Your task to perform on an android device: install app "Skype" Image 0: 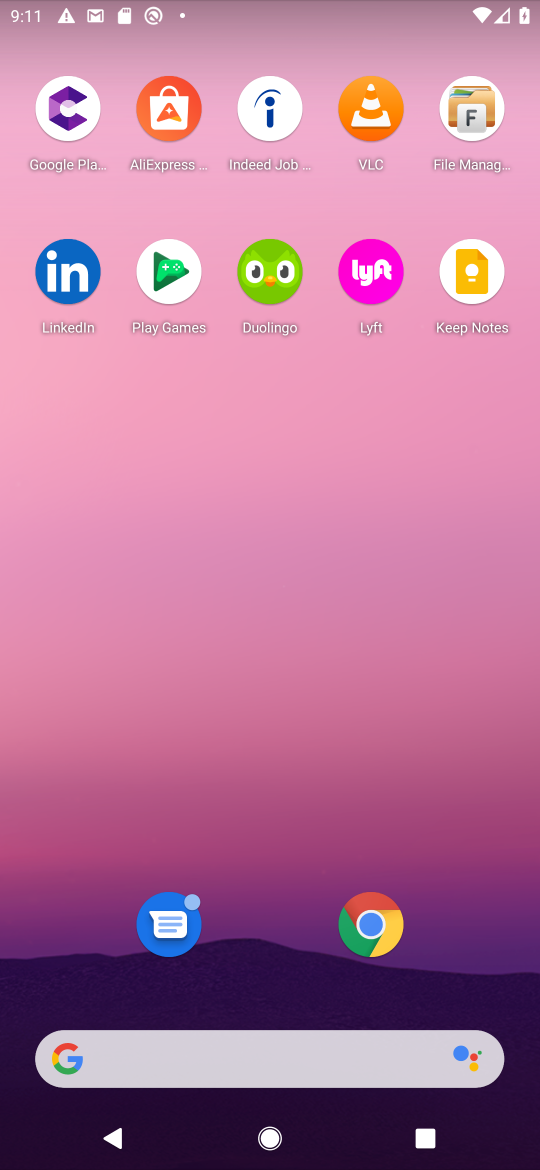
Step 0: press home button
Your task to perform on an android device: install app "Skype" Image 1: 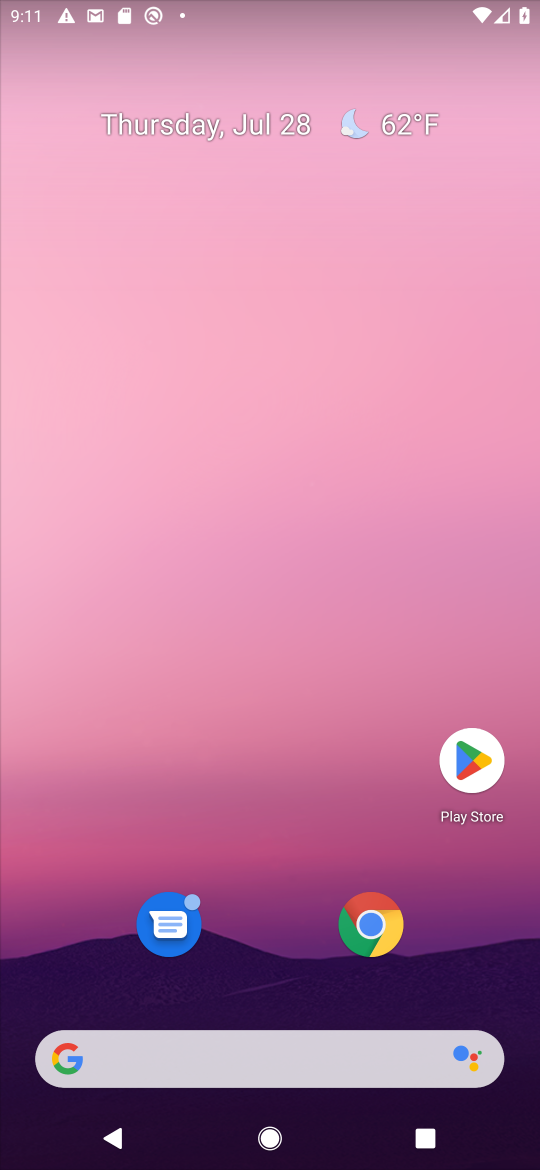
Step 1: click (471, 749)
Your task to perform on an android device: install app "Skype" Image 2: 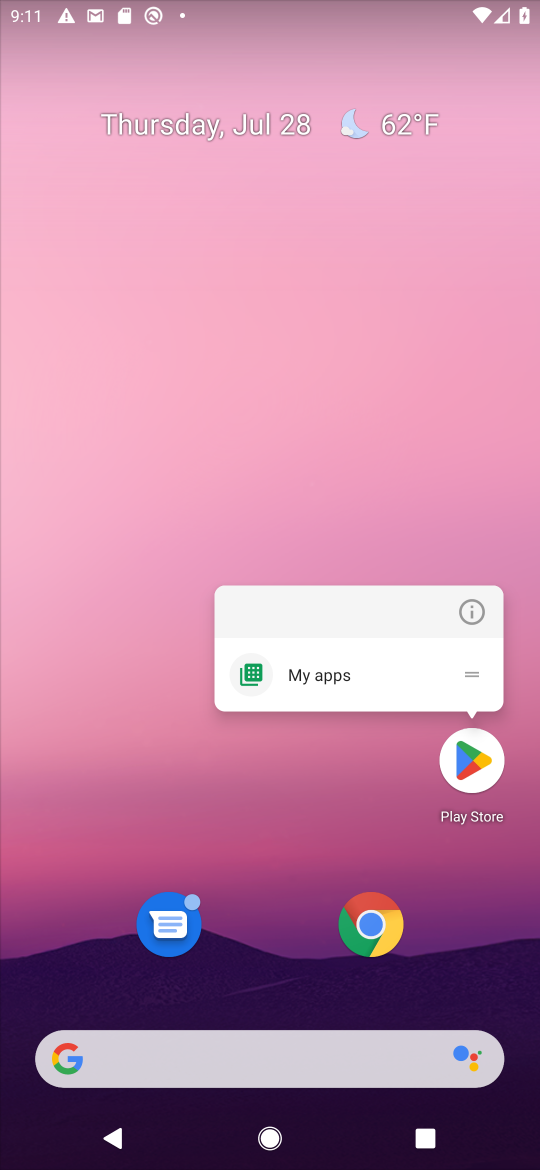
Step 2: click (471, 755)
Your task to perform on an android device: install app "Skype" Image 3: 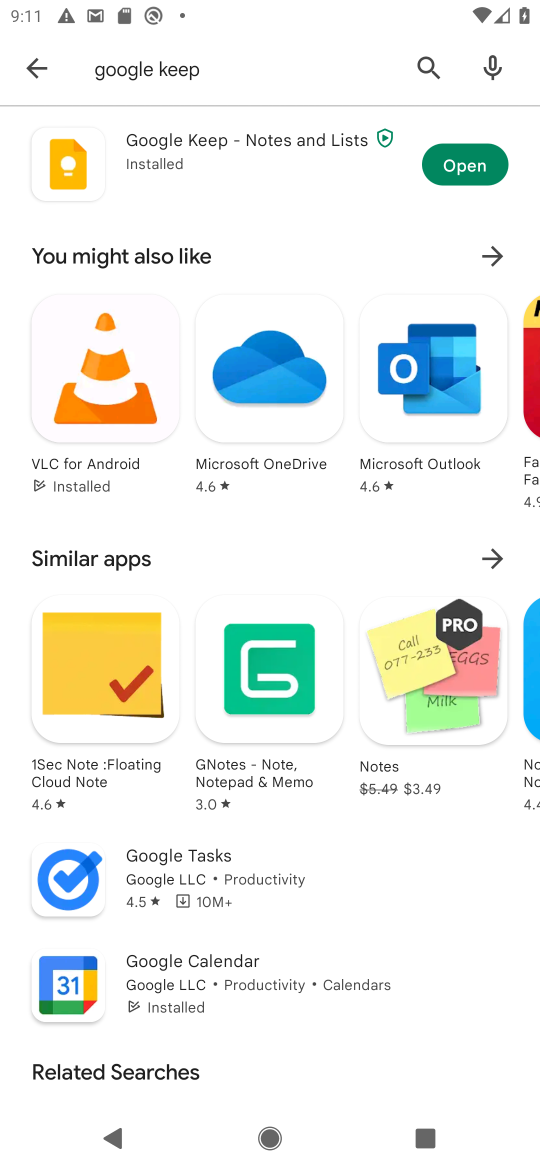
Step 3: click (425, 60)
Your task to perform on an android device: install app "Skype" Image 4: 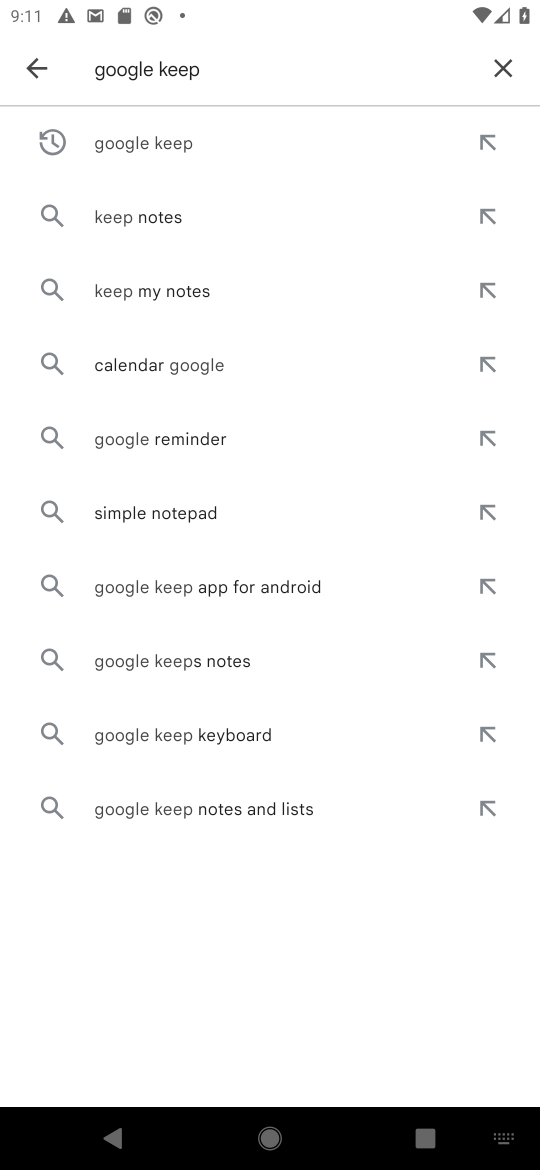
Step 4: click (500, 58)
Your task to perform on an android device: install app "Skype" Image 5: 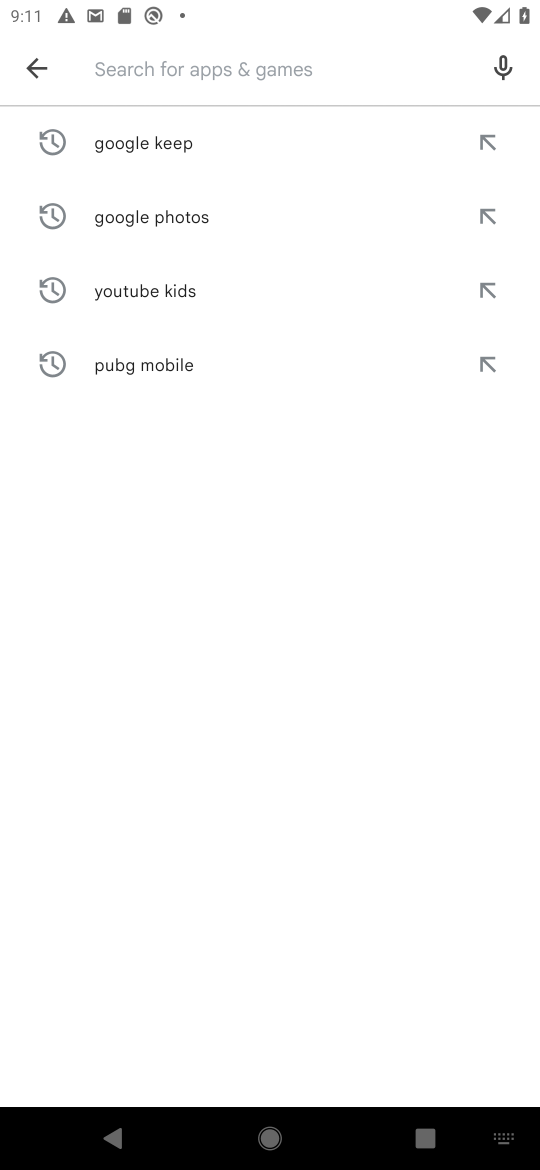
Step 5: type "Skype"
Your task to perform on an android device: install app "Skype" Image 6: 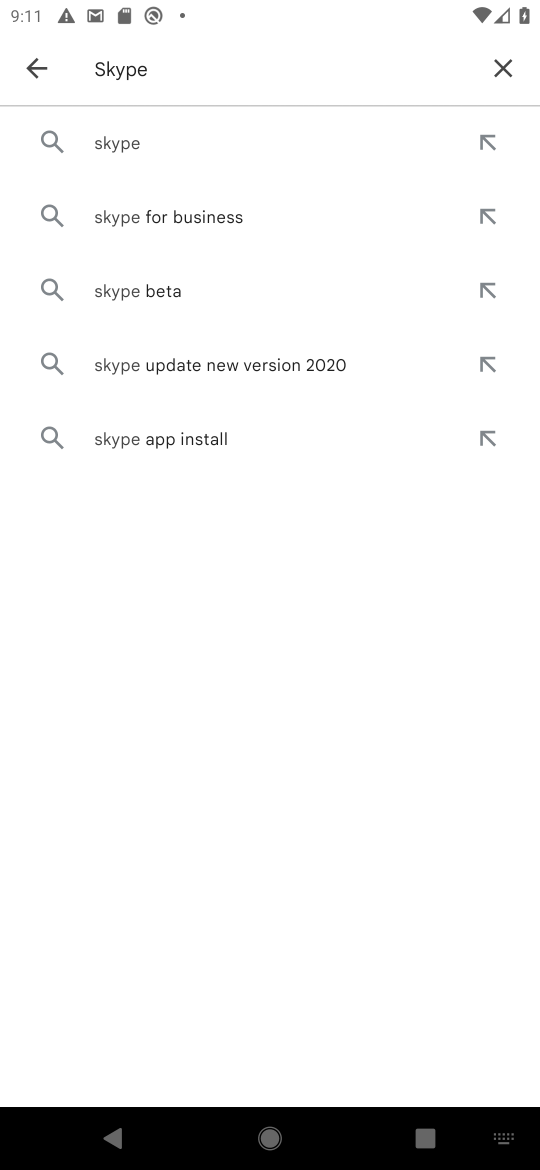
Step 6: click (131, 138)
Your task to perform on an android device: install app "Skype" Image 7: 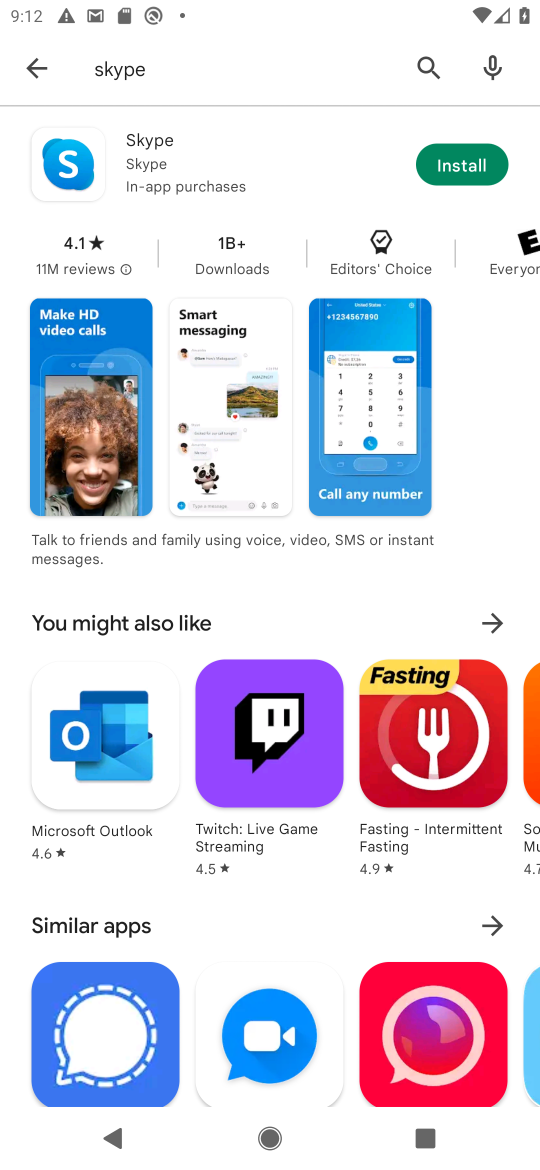
Step 7: click (469, 161)
Your task to perform on an android device: install app "Skype" Image 8: 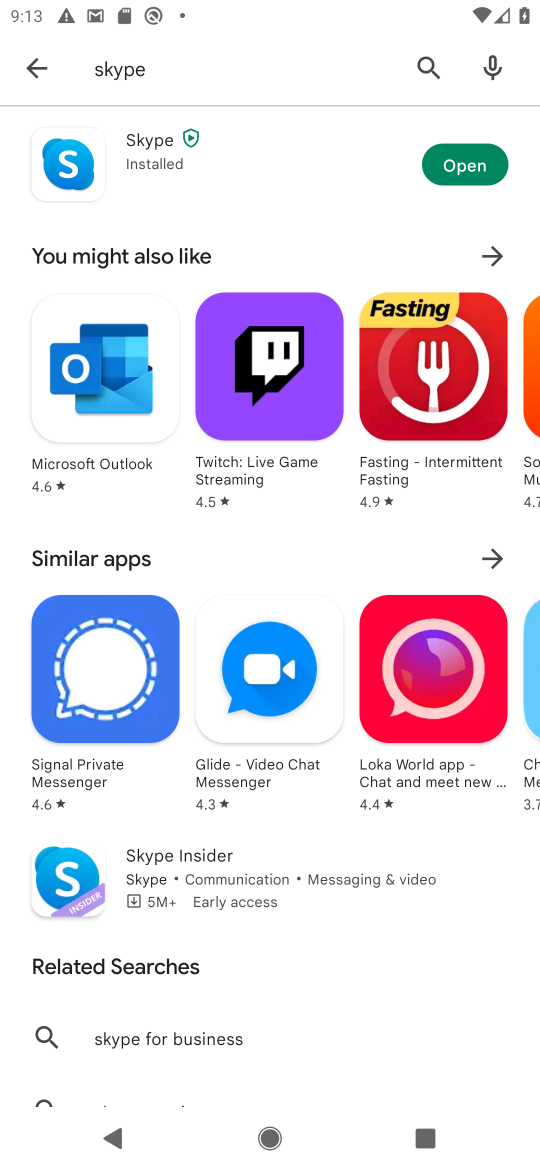
Step 8: task complete